Your task to perform on an android device: see creations saved in the google photos Image 0: 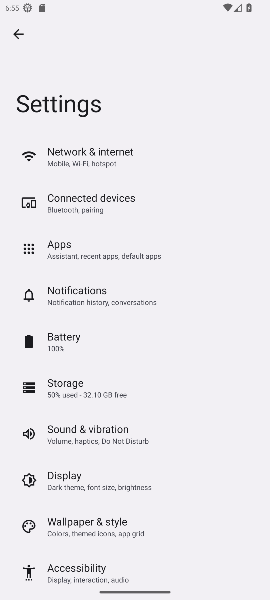
Step 0: task complete